Your task to perform on an android device: Go to ESPN.com Image 0: 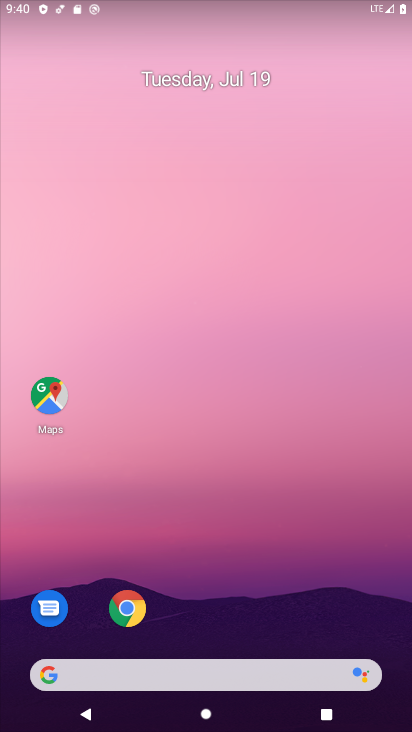
Step 0: click (121, 606)
Your task to perform on an android device: Go to ESPN.com Image 1: 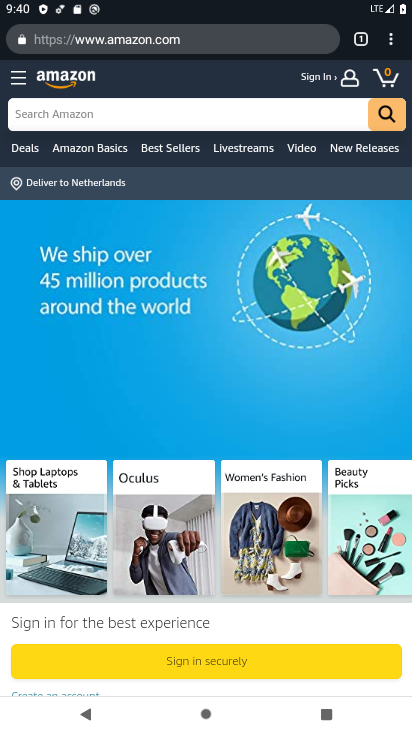
Step 1: click (143, 43)
Your task to perform on an android device: Go to ESPN.com Image 2: 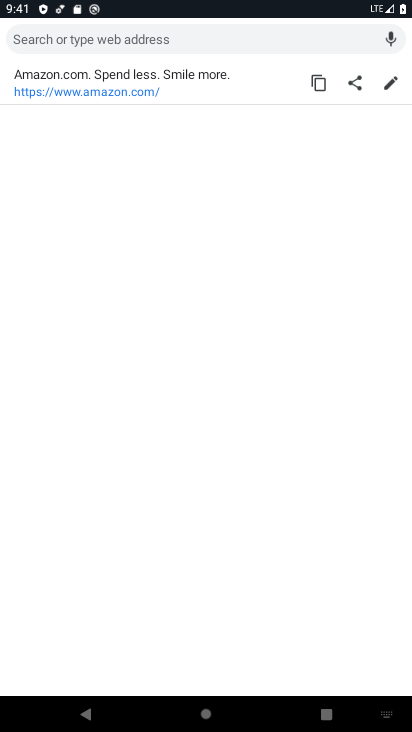
Step 2: type "ESPN.com"
Your task to perform on an android device: Go to ESPN.com Image 3: 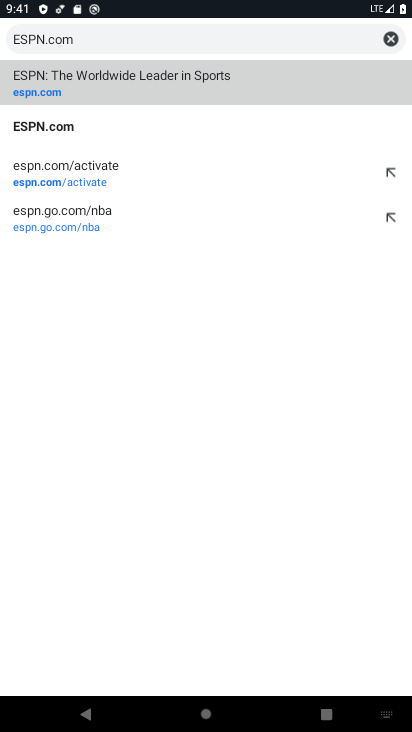
Step 3: click (141, 82)
Your task to perform on an android device: Go to ESPN.com Image 4: 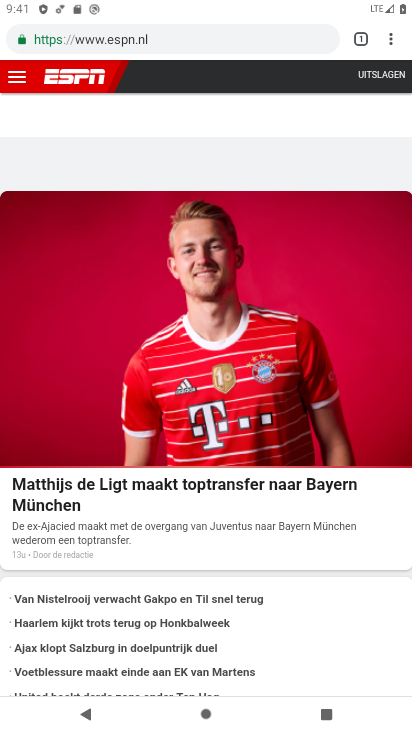
Step 4: task complete